Your task to perform on an android device: Open calendar and show me the fourth week of next month Image 0: 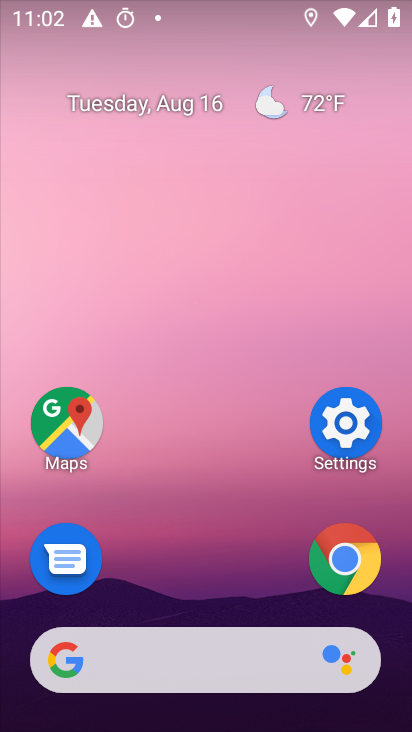
Step 0: drag from (192, 565) to (292, 181)
Your task to perform on an android device: Open calendar and show me the fourth week of next month Image 1: 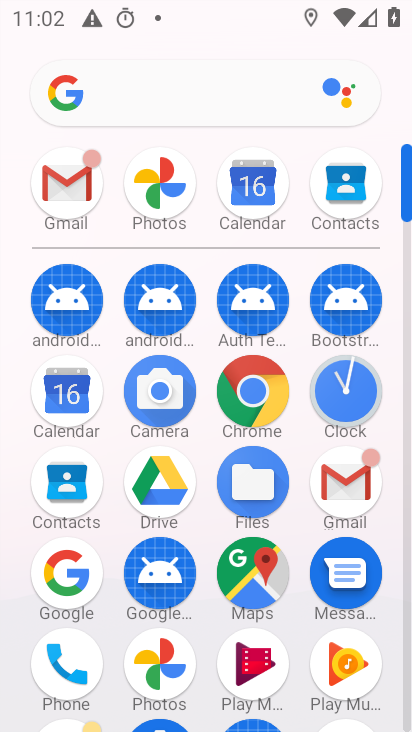
Step 1: click (259, 194)
Your task to perform on an android device: Open calendar and show me the fourth week of next month Image 2: 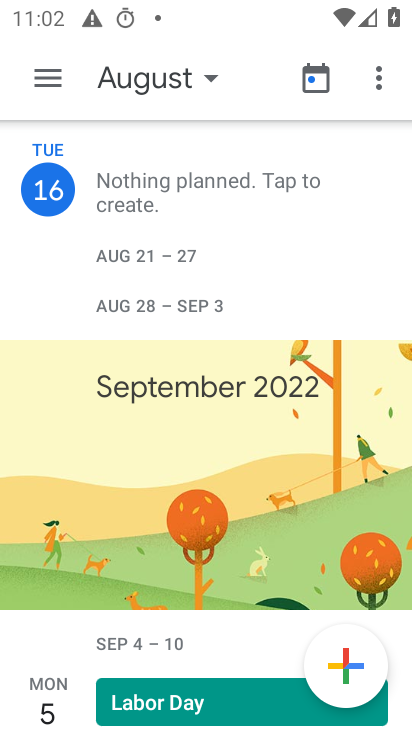
Step 2: click (166, 84)
Your task to perform on an android device: Open calendar and show me the fourth week of next month Image 3: 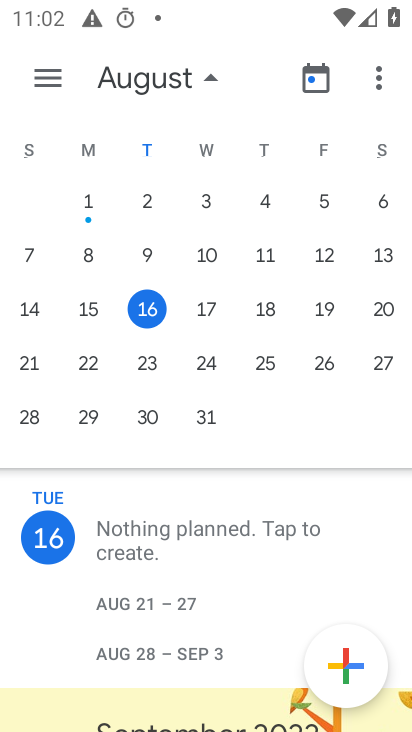
Step 3: drag from (365, 271) to (60, 262)
Your task to perform on an android device: Open calendar and show me the fourth week of next month Image 4: 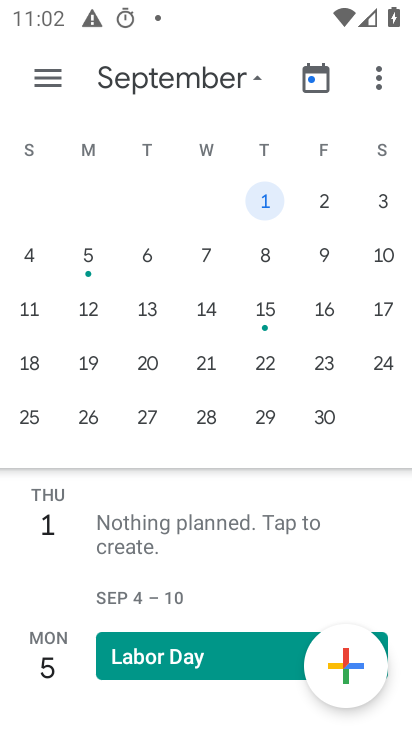
Step 4: click (43, 365)
Your task to perform on an android device: Open calendar and show me the fourth week of next month Image 5: 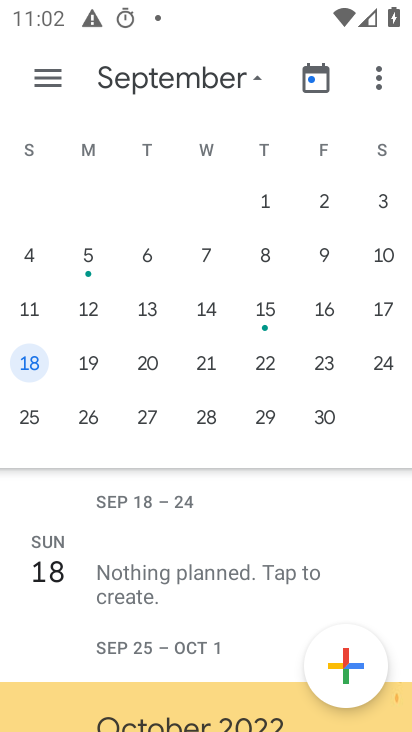
Step 5: click (51, 72)
Your task to perform on an android device: Open calendar and show me the fourth week of next month Image 6: 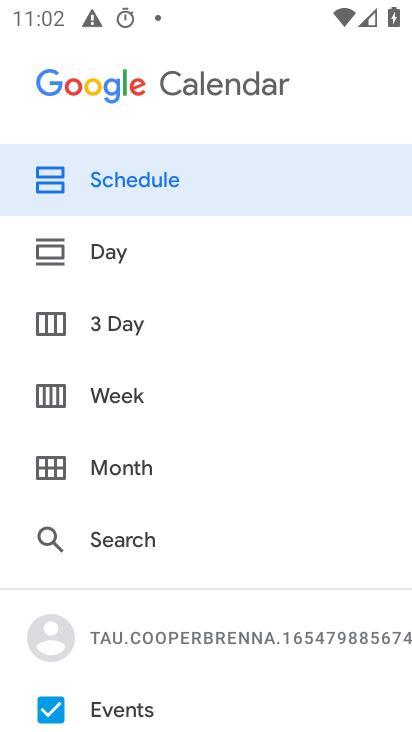
Step 6: click (129, 401)
Your task to perform on an android device: Open calendar and show me the fourth week of next month Image 7: 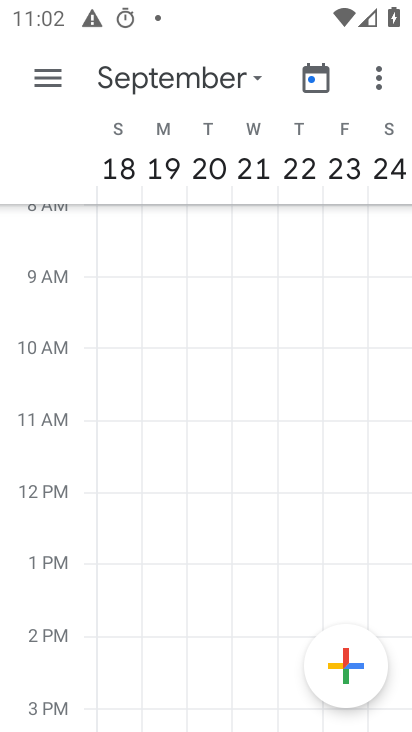
Step 7: task complete